Your task to perform on an android device: Open the phone app and click the voicemail tab. Image 0: 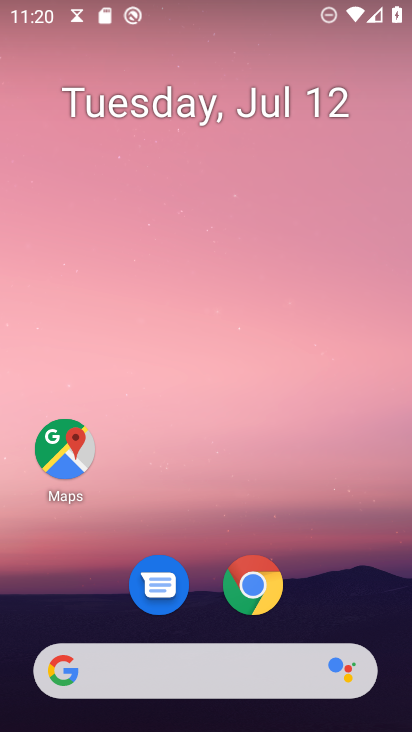
Step 0: drag from (161, 684) to (300, 153)
Your task to perform on an android device: Open the phone app and click the voicemail tab. Image 1: 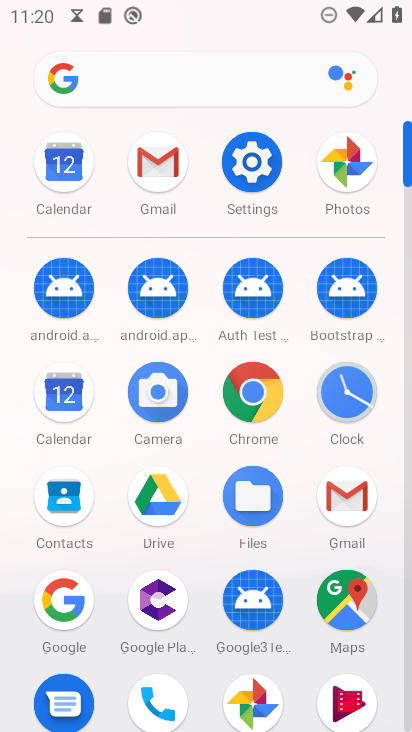
Step 1: click (160, 696)
Your task to perform on an android device: Open the phone app and click the voicemail tab. Image 2: 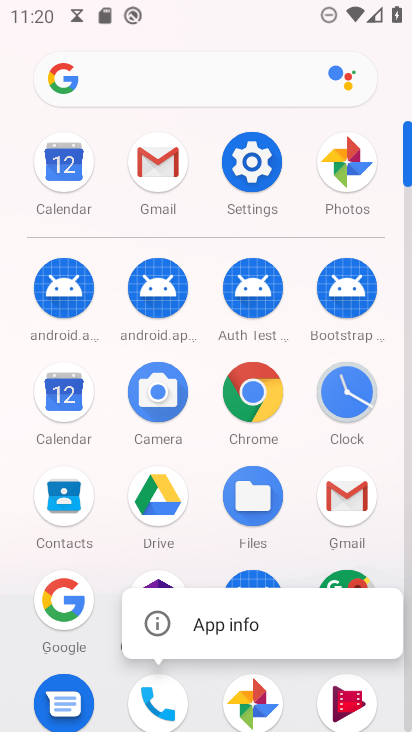
Step 2: click (159, 696)
Your task to perform on an android device: Open the phone app and click the voicemail tab. Image 3: 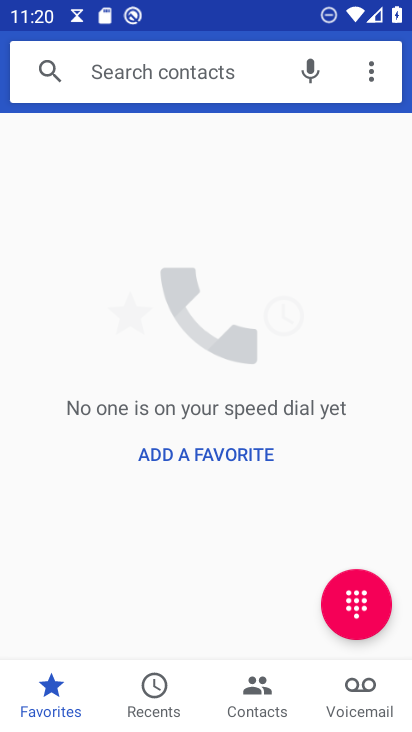
Step 3: click (350, 694)
Your task to perform on an android device: Open the phone app and click the voicemail tab. Image 4: 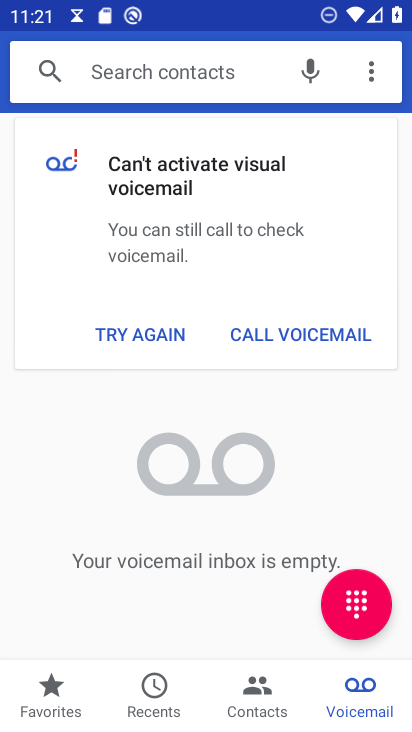
Step 4: task complete